Your task to perform on an android device: Open network settings Image 0: 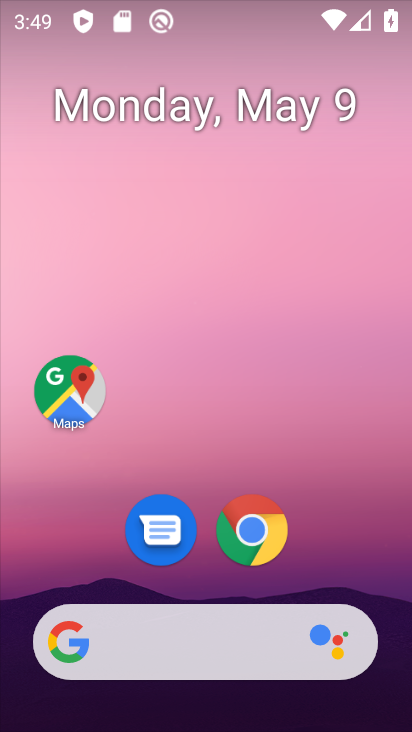
Step 0: drag from (201, 578) to (160, 98)
Your task to perform on an android device: Open network settings Image 1: 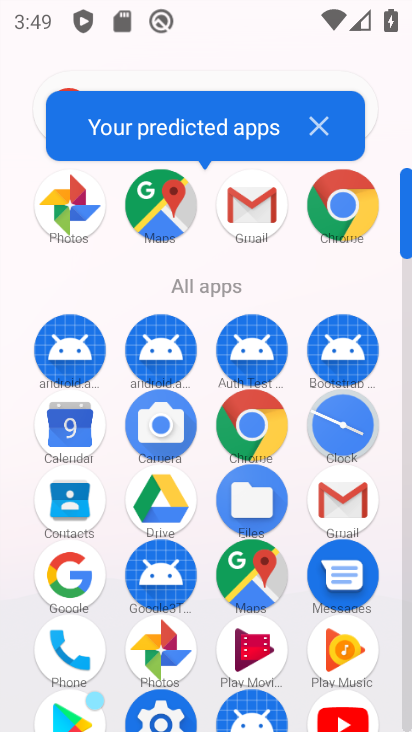
Step 1: click (152, 708)
Your task to perform on an android device: Open network settings Image 2: 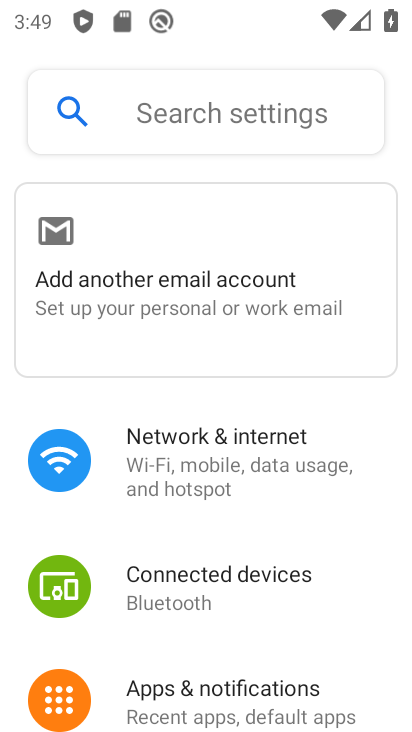
Step 2: click (184, 466)
Your task to perform on an android device: Open network settings Image 3: 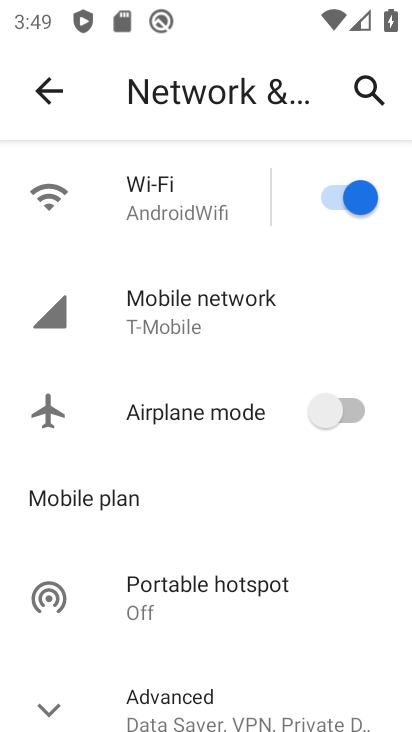
Step 3: click (44, 706)
Your task to perform on an android device: Open network settings Image 4: 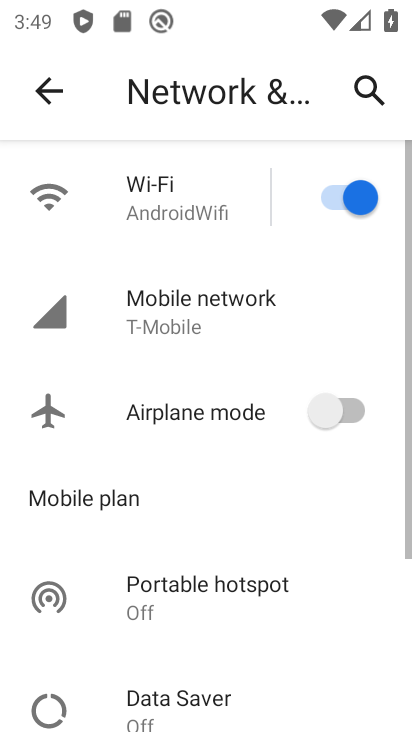
Step 4: task complete